Your task to perform on an android device: toggle show notifications on the lock screen Image 0: 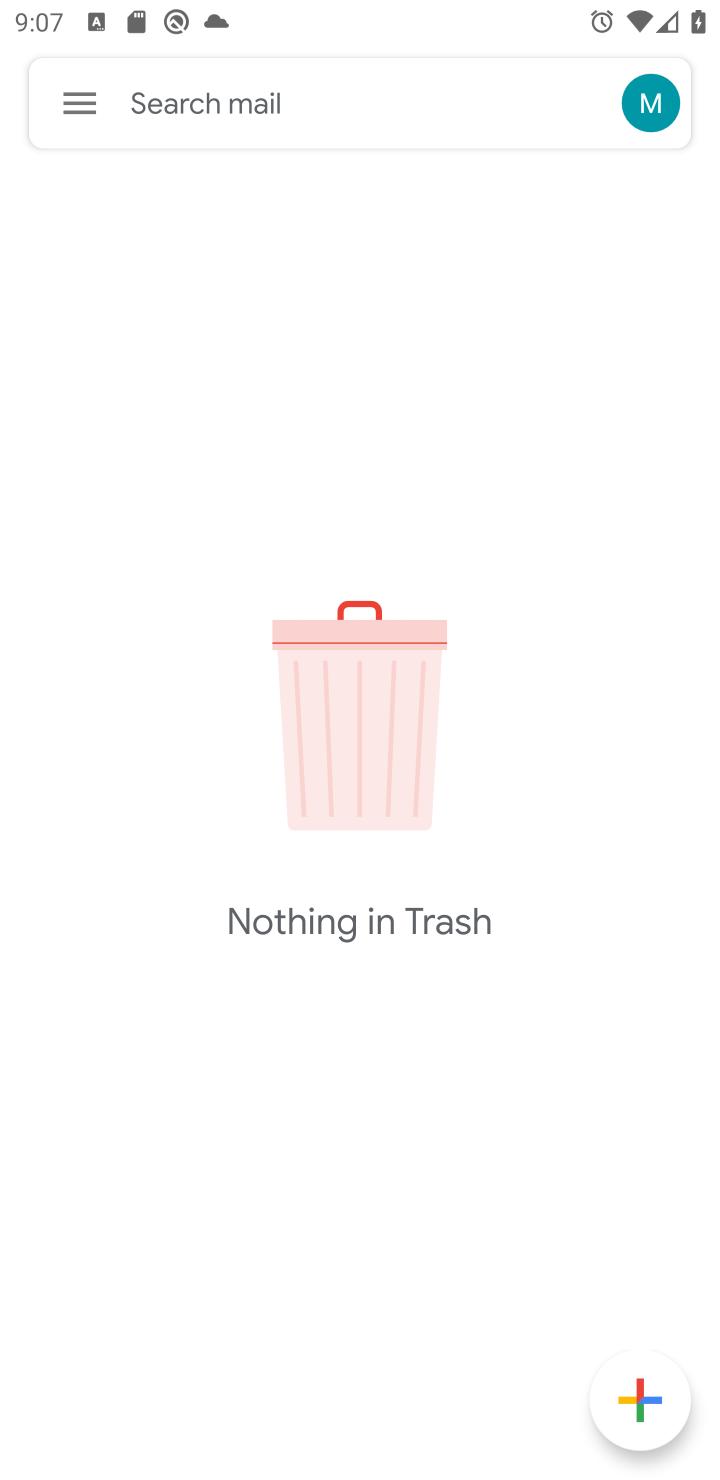
Step 0: press home button
Your task to perform on an android device: toggle show notifications on the lock screen Image 1: 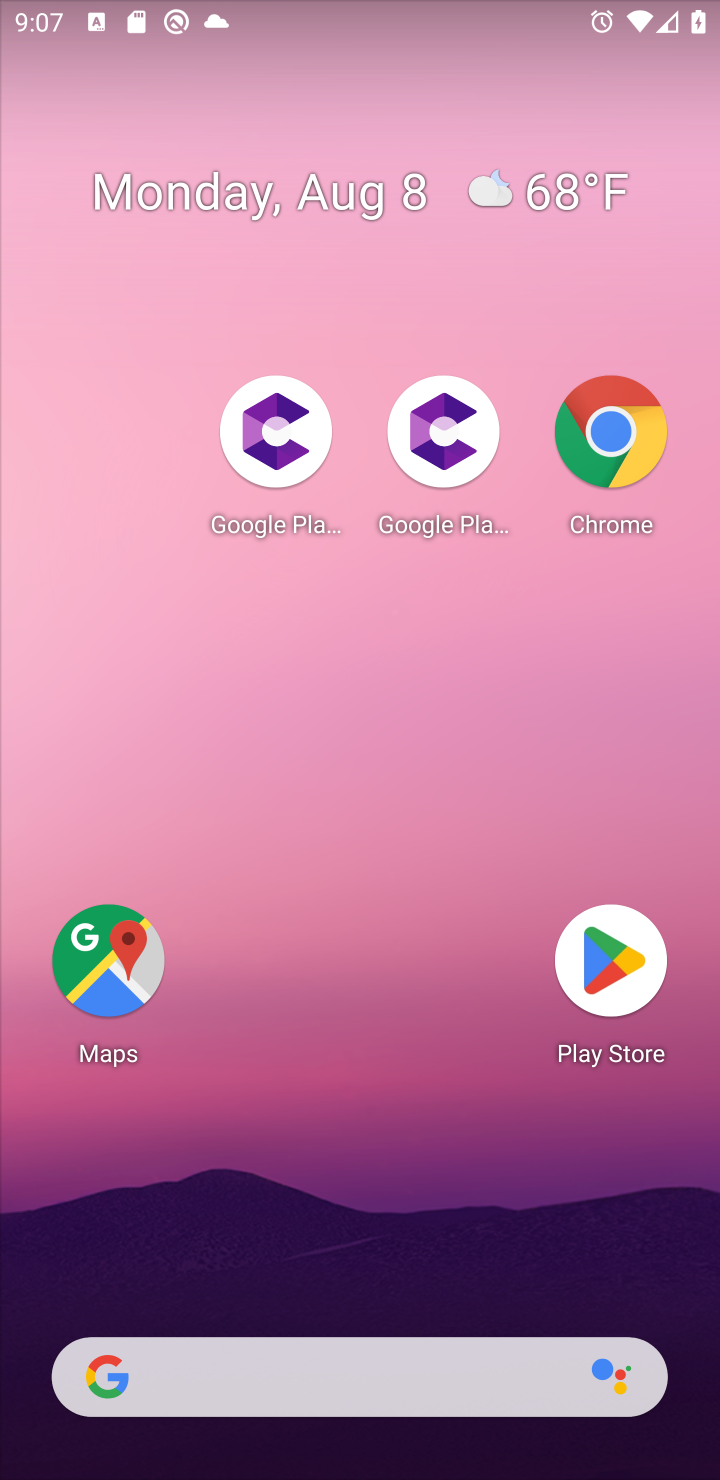
Step 1: drag from (389, 1314) to (496, 132)
Your task to perform on an android device: toggle show notifications on the lock screen Image 2: 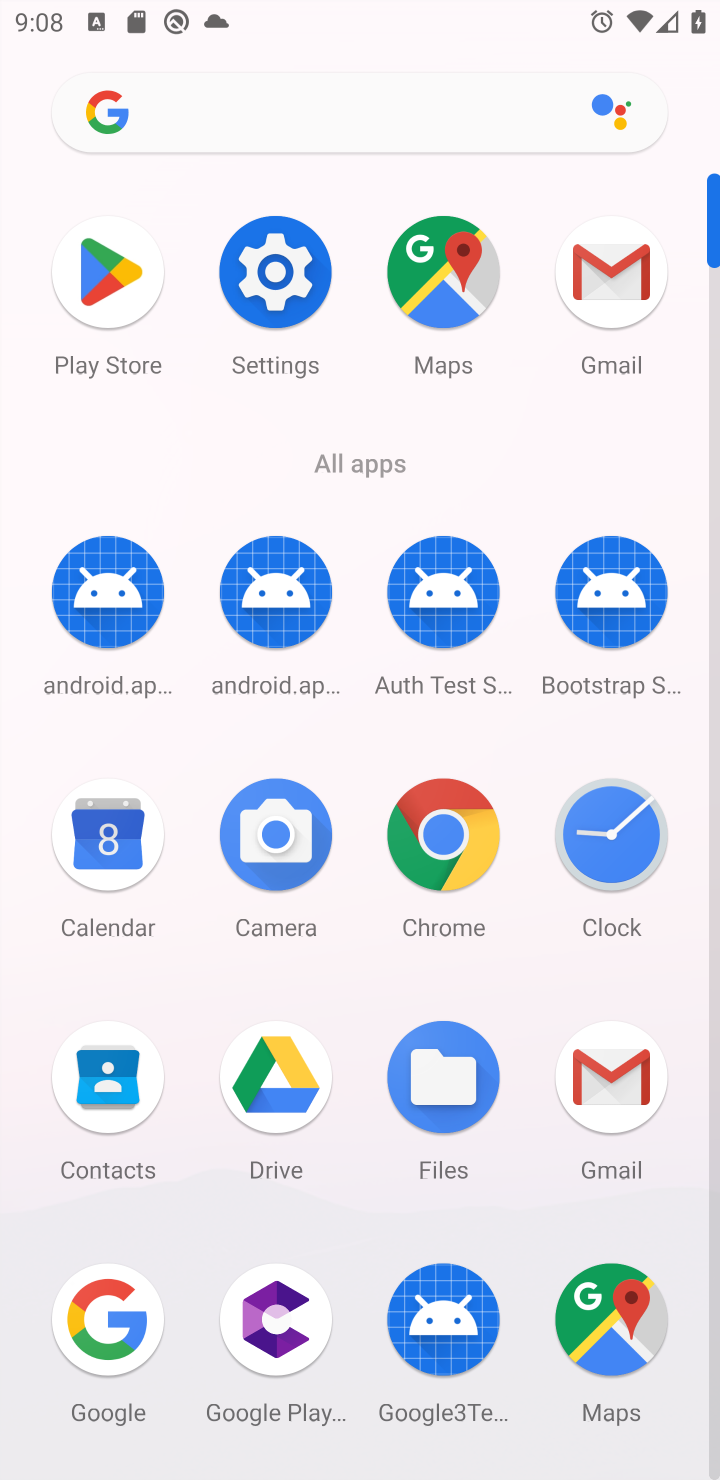
Step 2: click (272, 238)
Your task to perform on an android device: toggle show notifications on the lock screen Image 3: 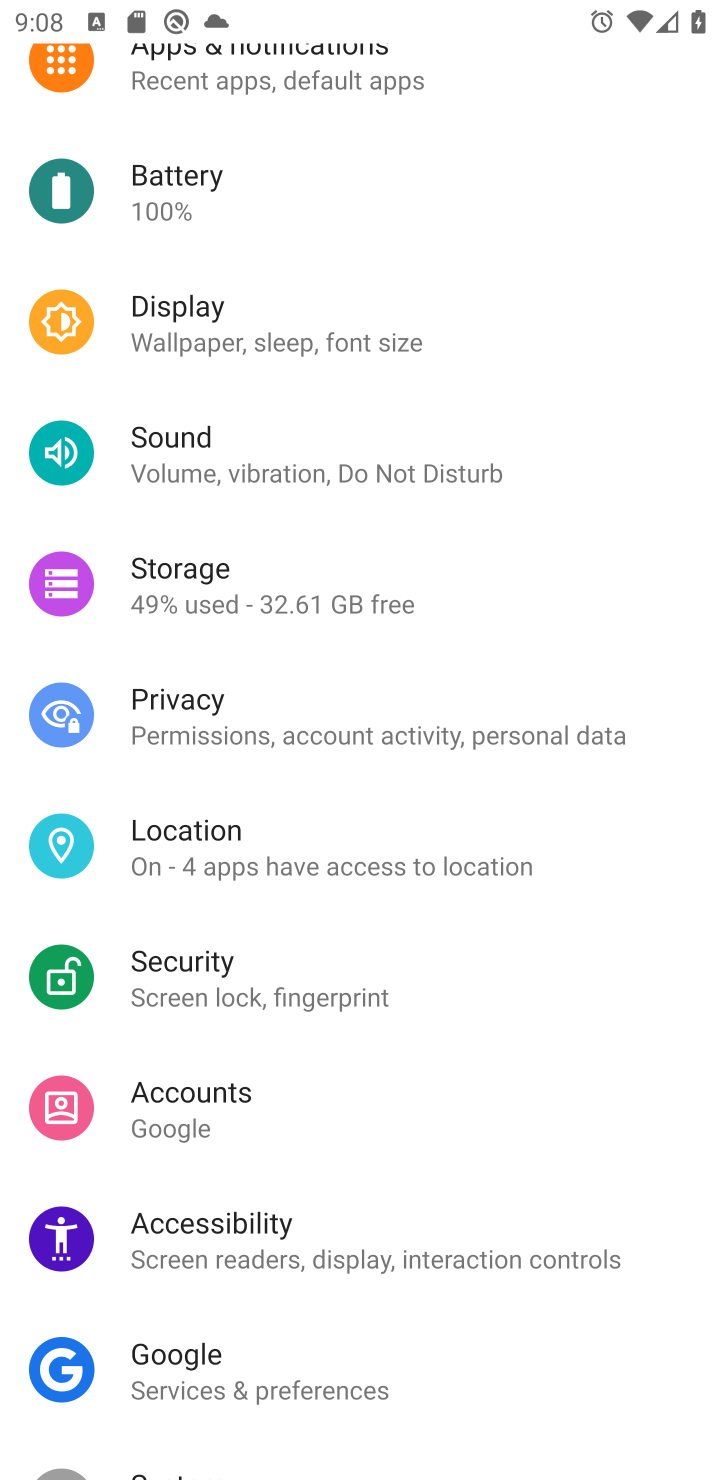
Step 3: drag from (272, 238) to (328, 1059)
Your task to perform on an android device: toggle show notifications on the lock screen Image 4: 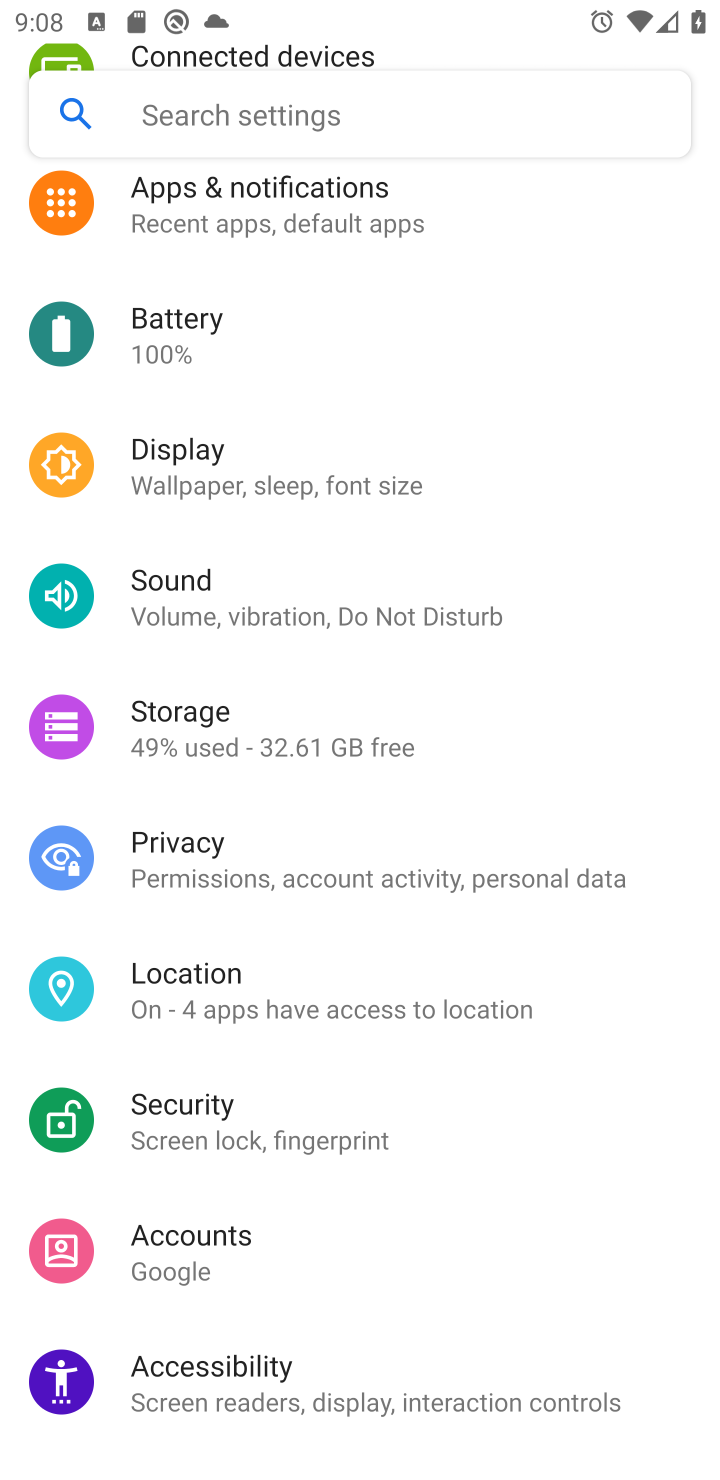
Step 4: click (257, 195)
Your task to perform on an android device: toggle show notifications on the lock screen Image 5: 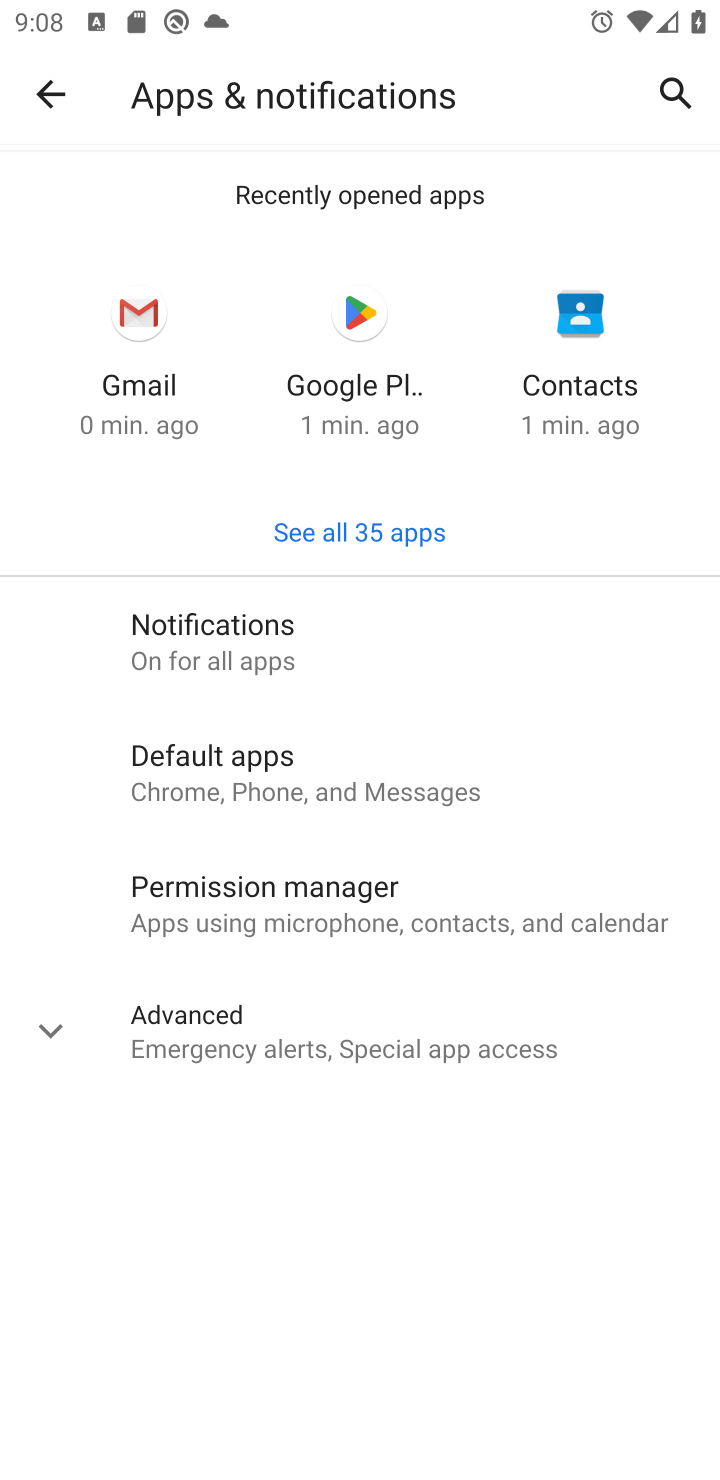
Step 5: click (291, 616)
Your task to perform on an android device: toggle show notifications on the lock screen Image 6: 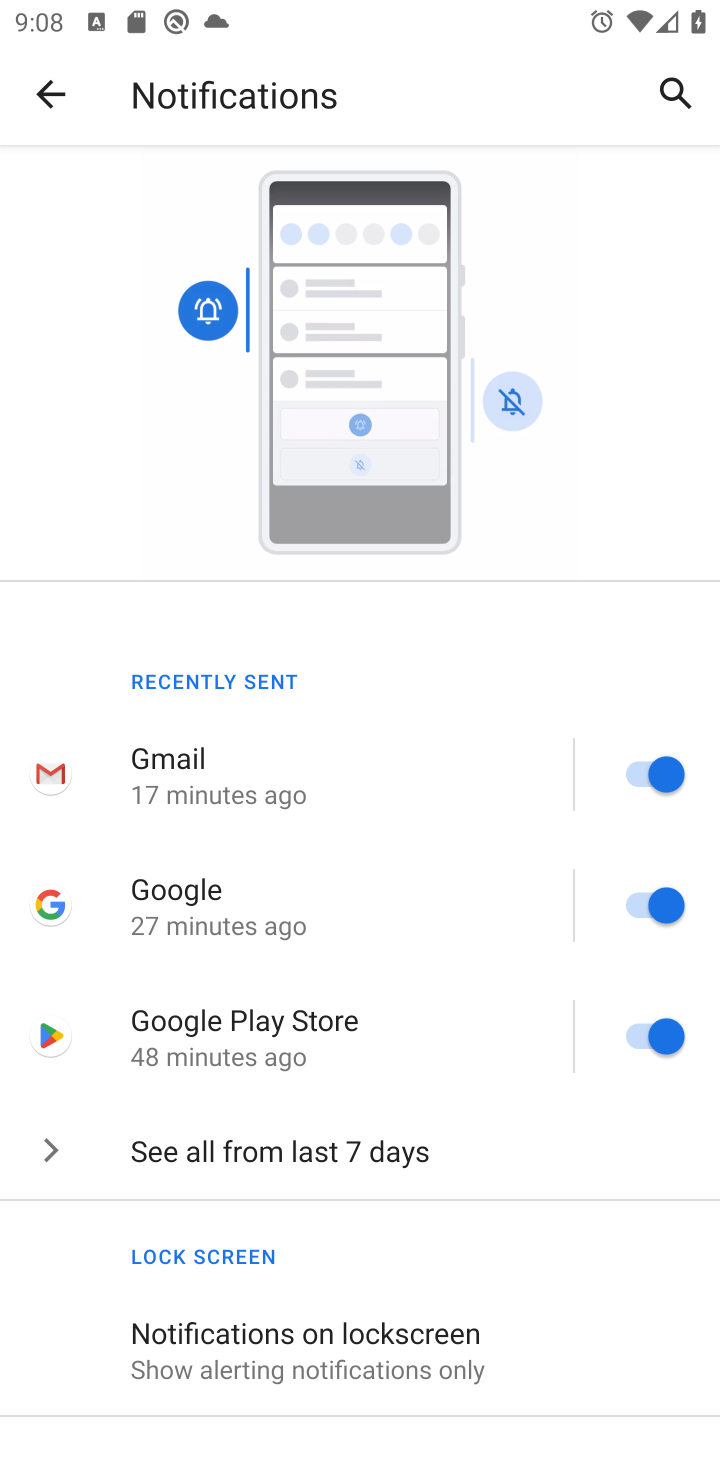
Step 6: click (204, 1328)
Your task to perform on an android device: toggle show notifications on the lock screen Image 7: 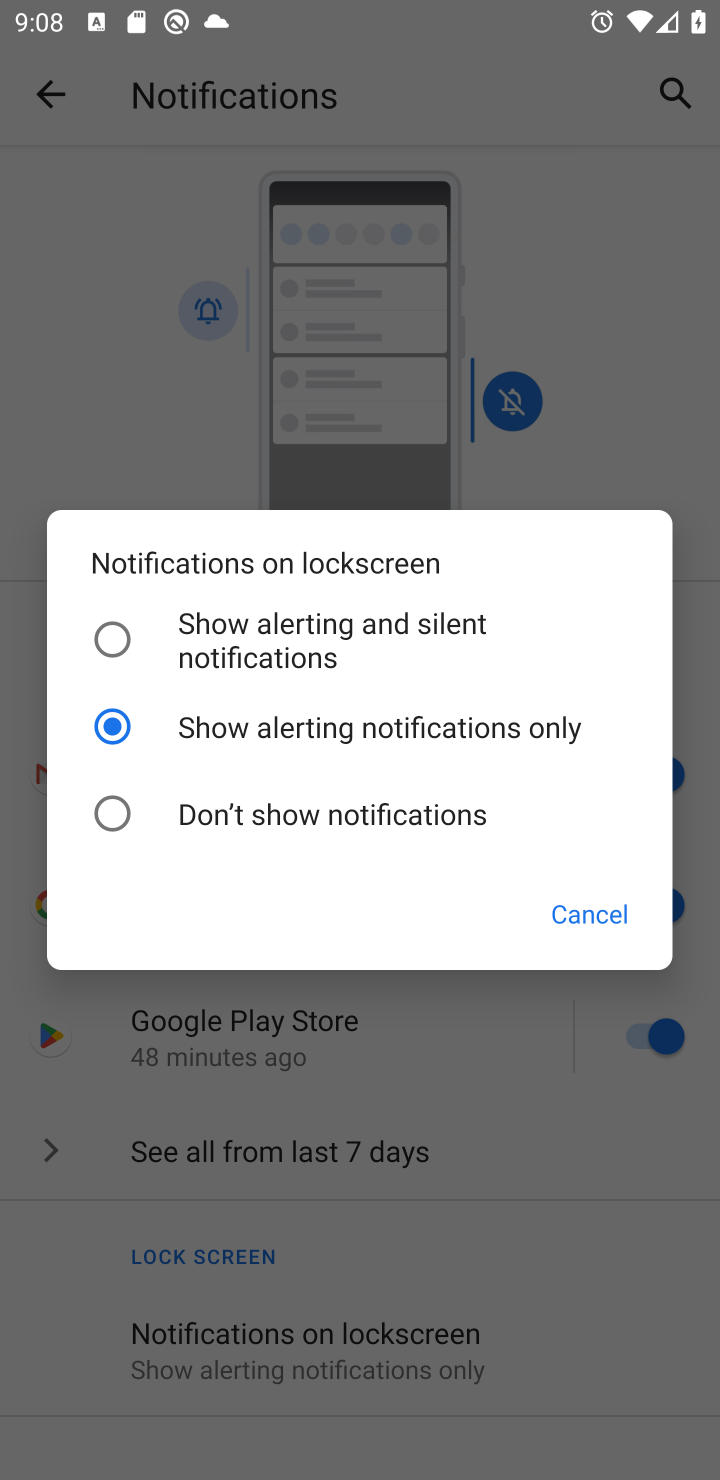
Step 7: click (265, 617)
Your task to perform on an android device: toggle show notifications on the lock screen Image 8: 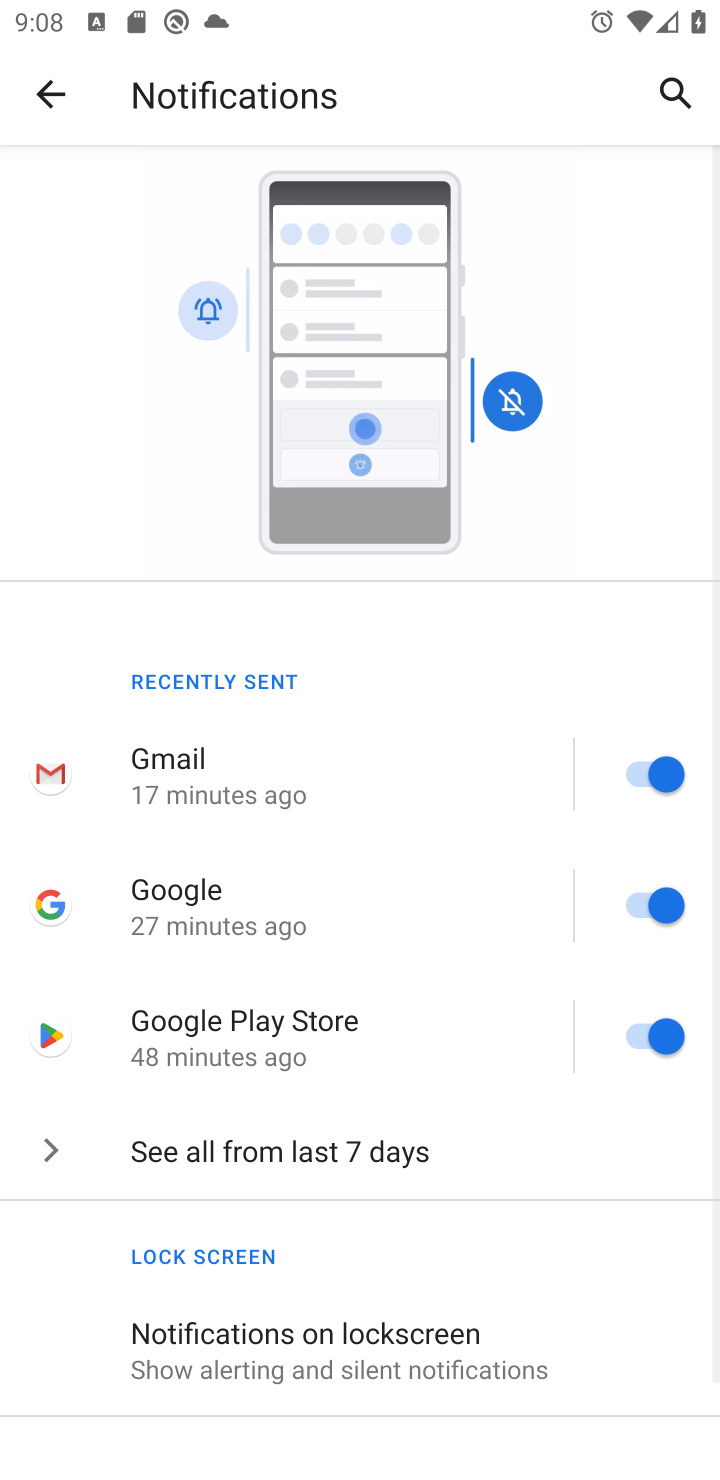
Step 8: task complete